Your task to perform on an android device: What is the recent news? Image 0: 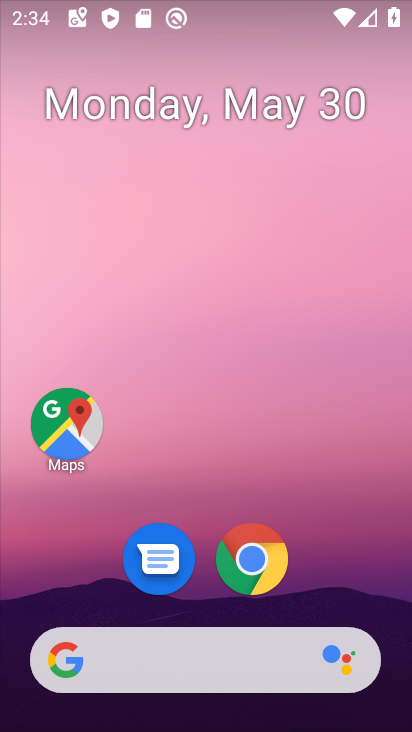
Step 0: drag from (9, 303) to (388, 243)
Your task to perform on an android device: What is the recent news? Image 1: 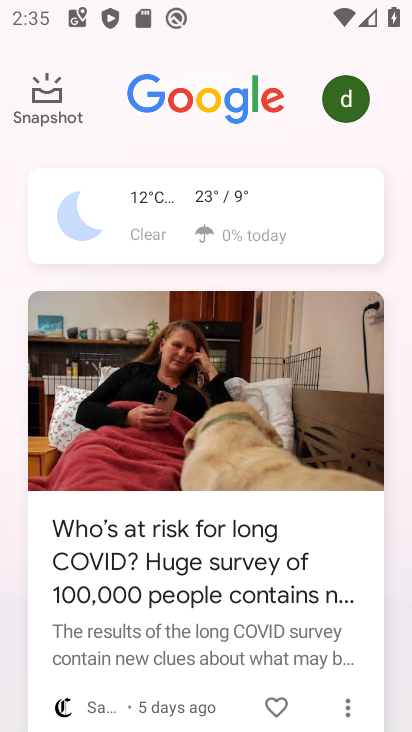
Step 1: task complete